Your task to perform on an android device: Go to eBay Image 0: 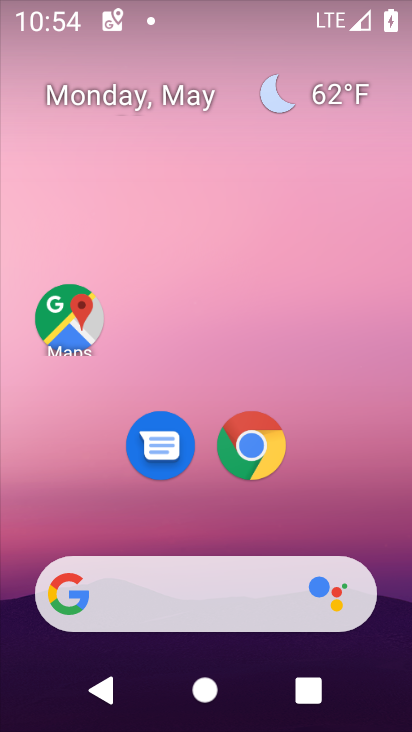
Step 0: drag from (383, 623) to (377, 417)
Your task to perform on an android device: Go to eBay Image 1: 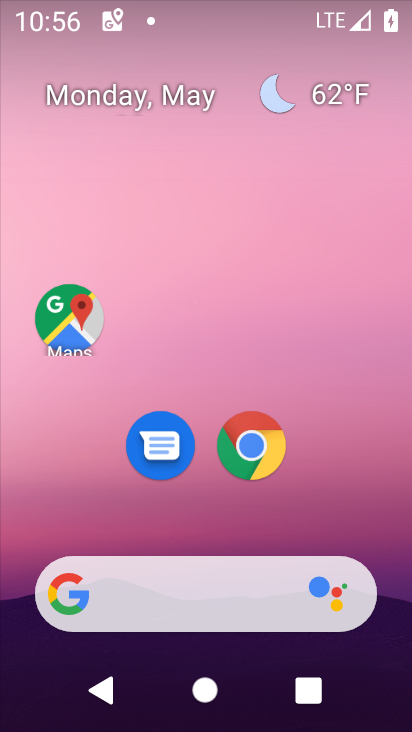
Step 1: drag from (398, 622) to (296, 110)
Your task to perform on an android device: Go to eBay Image 2: 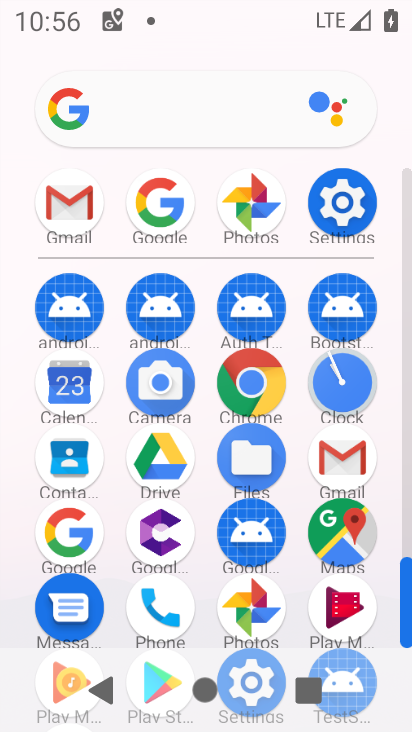
Step 2: click (154, 223)
Your task to perform on an android device: Go to eBay Image 3: 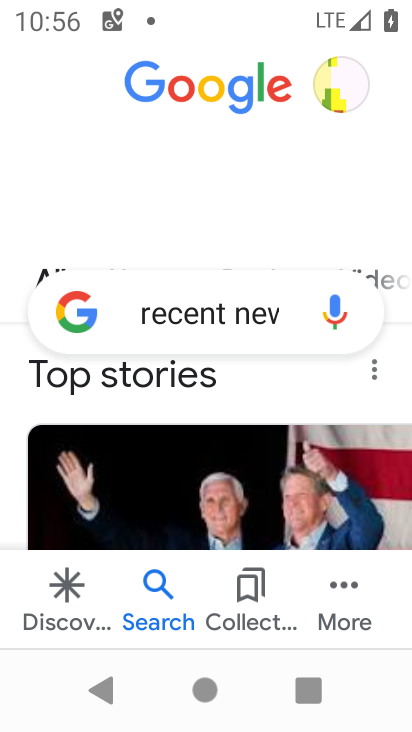
Step 3: press back button
Your task to perform on an android device: Go to eBay Image 4: 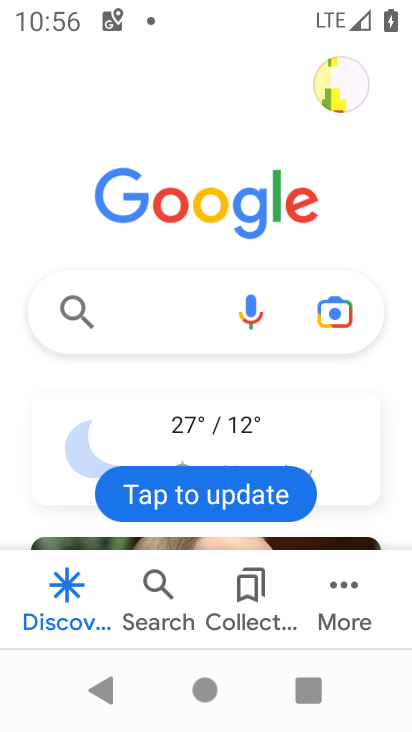
Step 4: click (155, 300)
Your task to perform on an android device: Go to eBay Image 5: 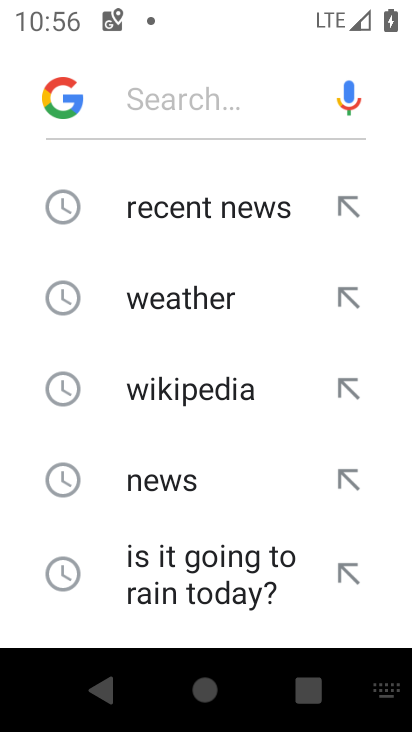
Step 5: drag from (181, 582) to (274, 193)
Your task to perform on an android device: Go to eBay Image 6: 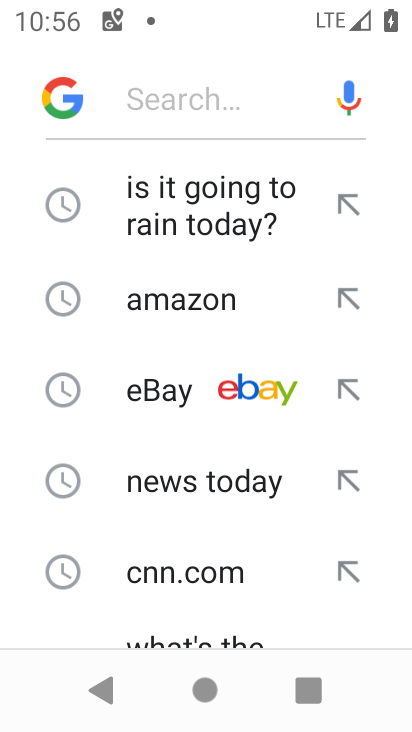
Step 6: click (190, 400)
Your task to perform on an android device: Go to eBay Image 7: 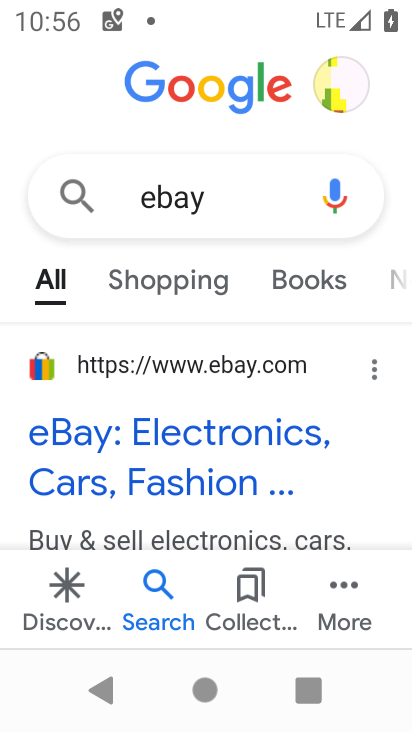
Step 7: task complete